Your task to perform on an android device: toggle notification dots Image 0: 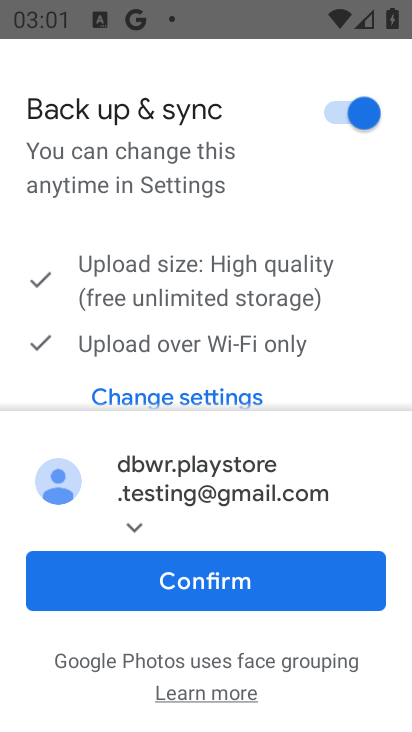
Step 0: press home button
Your task to perform on an android device: toggle notification dots Image 1: 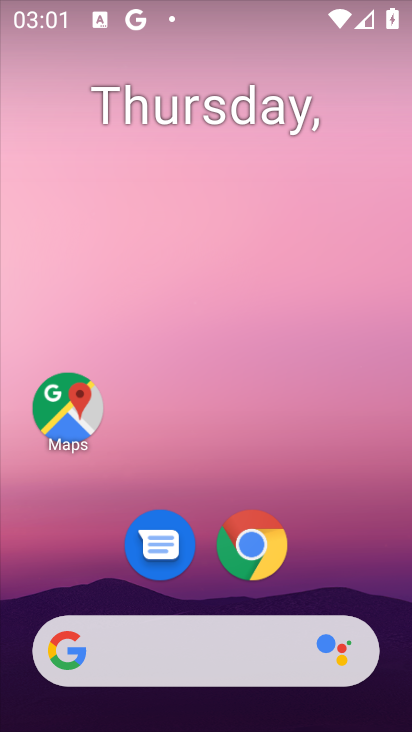
Step 1: drag from (178, 682) to (156, 278)
Your task to perform on an android device: toggle notification dots Image 2: 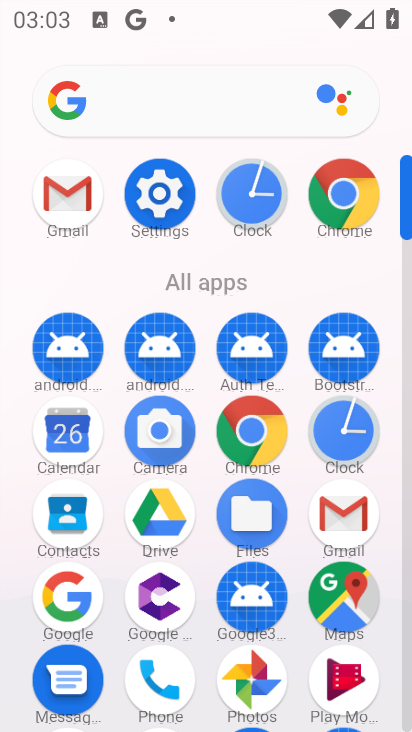
Step 2: click (153, 192)
Your task to perform on an android device: toggle notification dots Image 3: 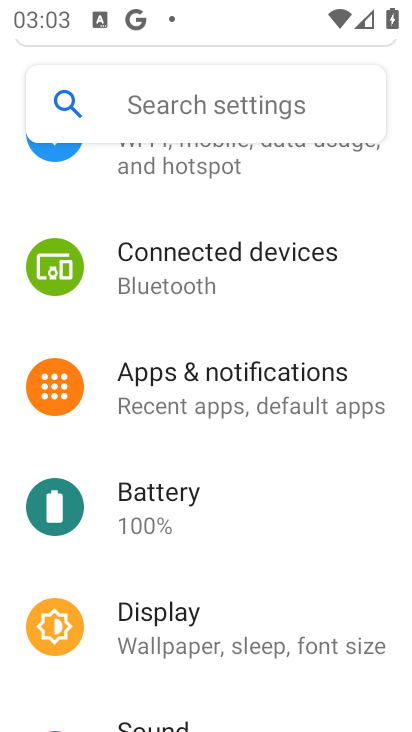
Step 3: drag from (274, 382) to (255, 722)
Your task to perform on an android device: toggle notification dots Image 4: 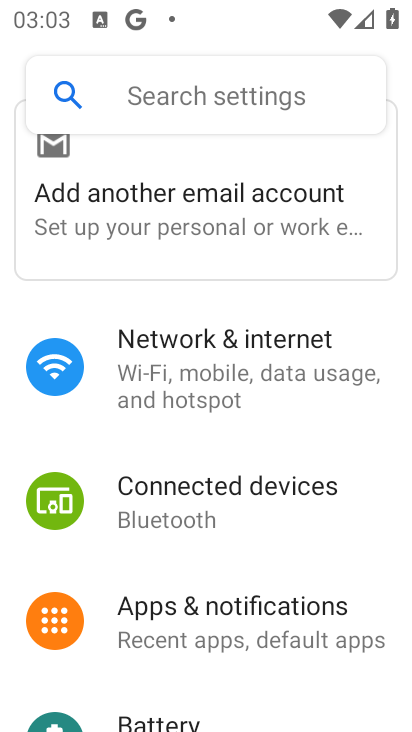
Step 4: click (262, 617)
Your task to perform on an android device: toggle notification dots Image 5: 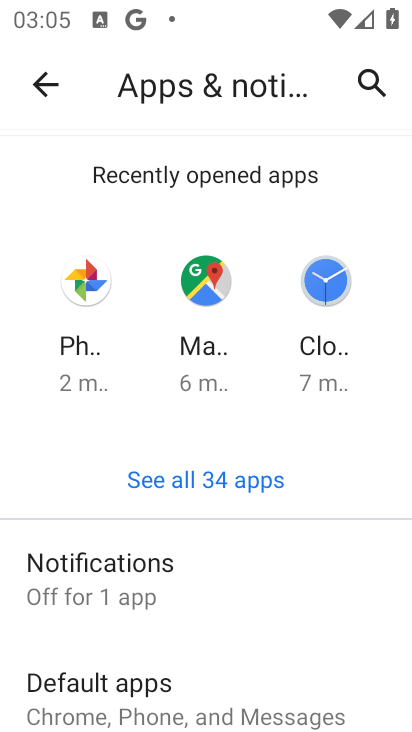
Step 5: drag from (342, 669) to (410, 365)
Your task to perform on an android device: toggle notification dots Image 6: 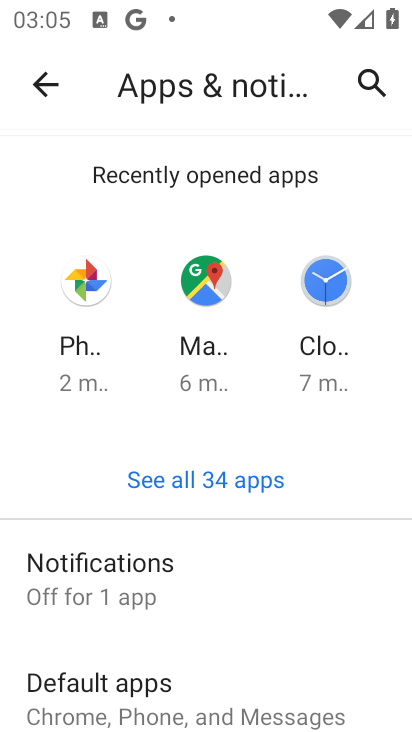
Step 6: drag from (345, 640) to (227, 158)
Your task to perform on an android device: toggle notification dots Image 7: 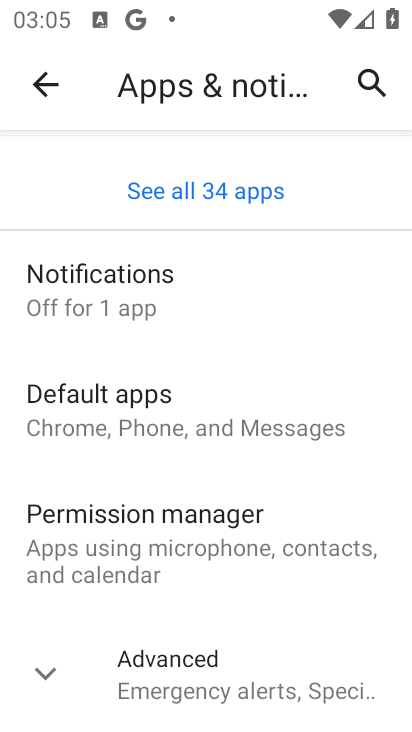
Step 7: click (286, 682)
Your task to perform on an android device: toggle notification dots Image 8: 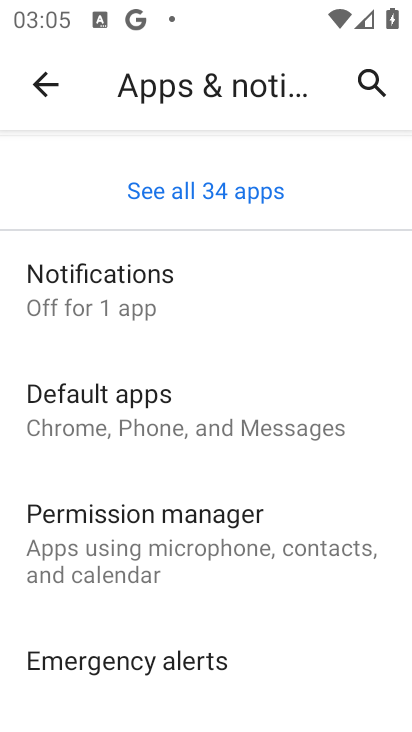
Step 8: drag from (364, 649) to (268, 103)
Your task to perform on an android device: toggle notification dots Image 9: 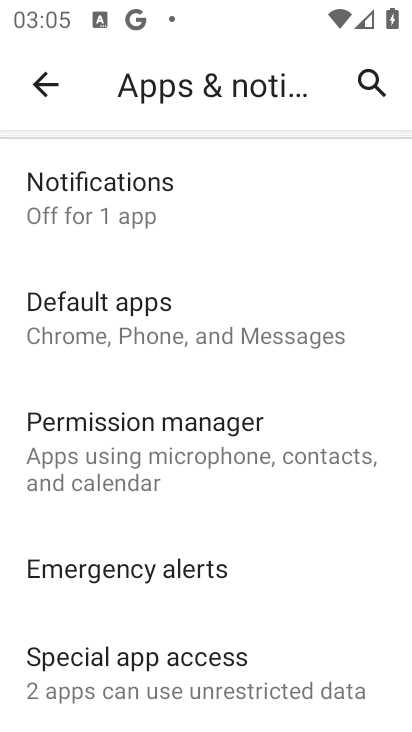
Step 9: click (266, 682)
Your task to perform on an android device: toggle notification dots Image 10: 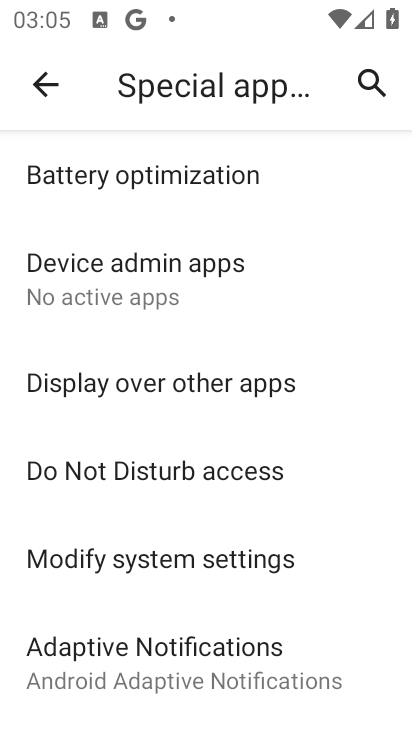
Step 10: click (27, 87)
Your task to perform on an android device: toggle notification dots Image 11: 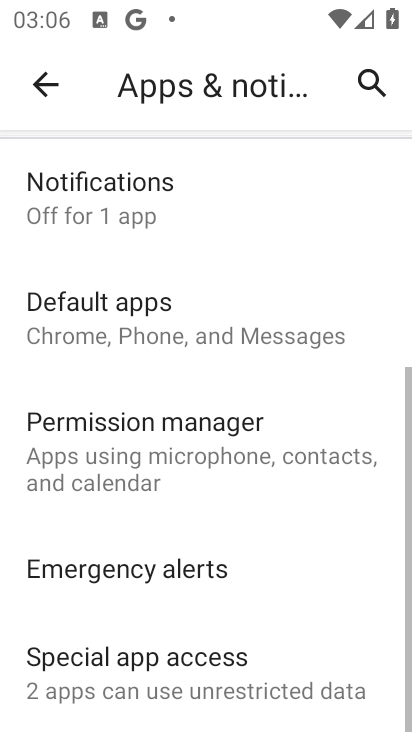
Step 11: drag from (268, 652) to (156, 42)
Your task to perform on an android device: toggle notification dots Image 12: 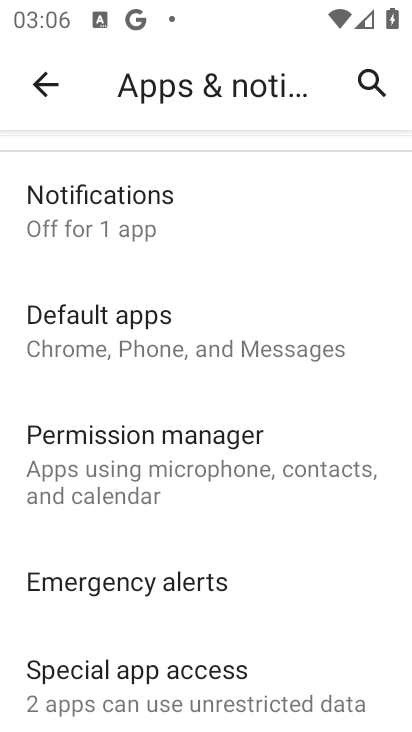
Step 12: click (164, 221)
Your task to perform on an android device: toggle notification dots Image 13: 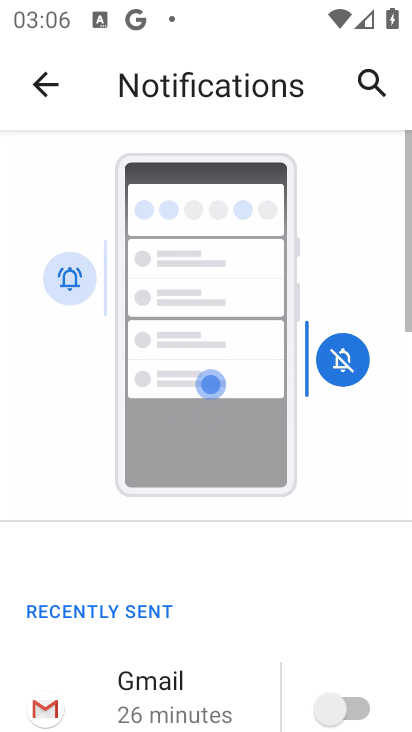
Step 13: drag from (246, 662) to (251, 20)
Your task to perform on an android device: toggle notification dots Image 14: 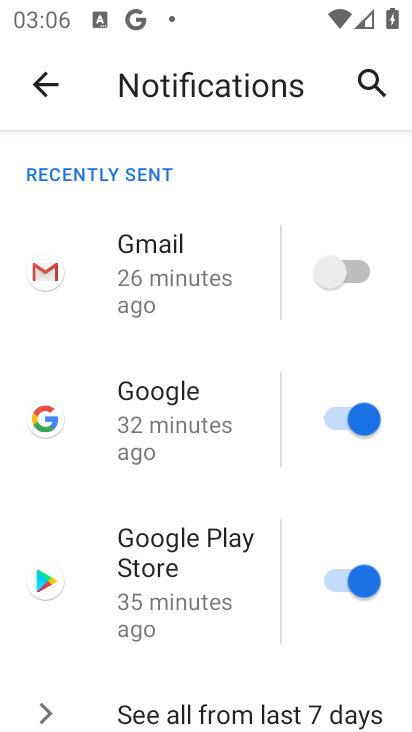
Step 14: drag from (168, 241) to (148, 7)
Your task to perform on an android device: toggle notification dots Image 15: 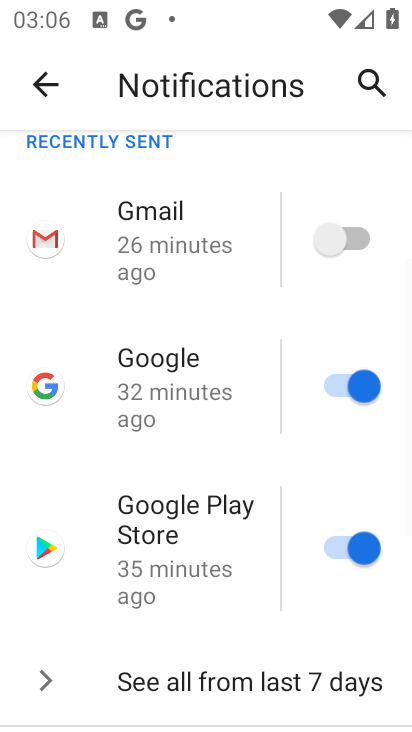
Step 15: drag from (286, 635) to (202, 123)
Your task to perform on an android device: toggle notification dots Image 16: 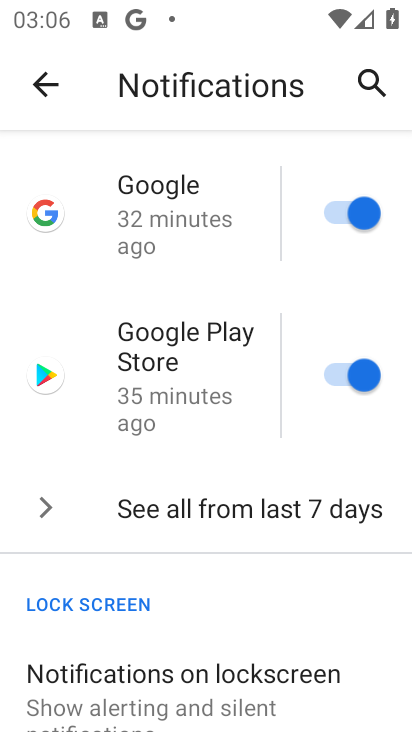
Step 16: drag from (305, 654) to (197, 62)
Your task to perform on an android device: toggle notification dots Image 17: 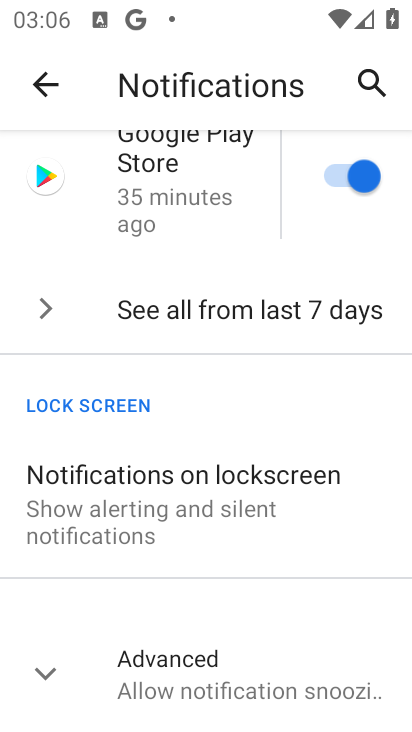
Step 17: click (307, 689)
Your task to perform on an android device: toggle notification dots Image 18: 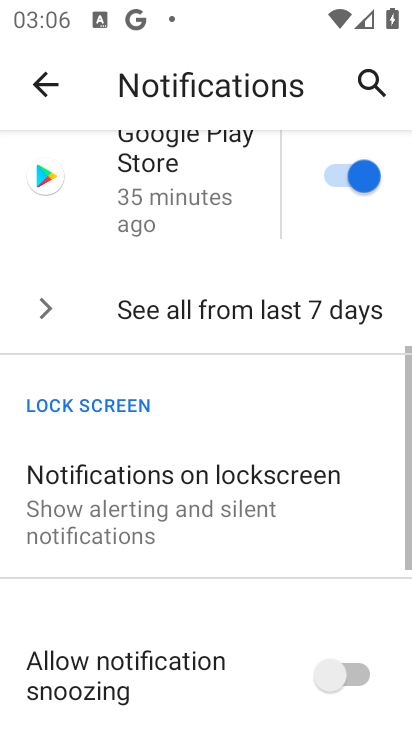
Step 18: drag from (265, 688) to (179, 25)
Your task to perform on an android device: toggle notification dots Image 19: 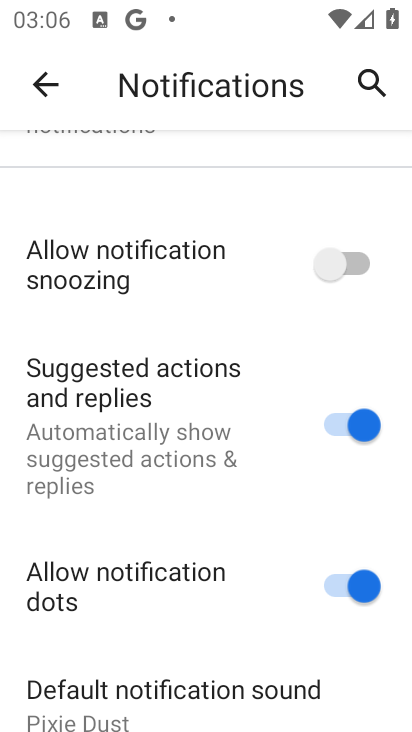
Step 19: click (371, 592)
Your task to perform on an android device: toggle notification dots Image 20: 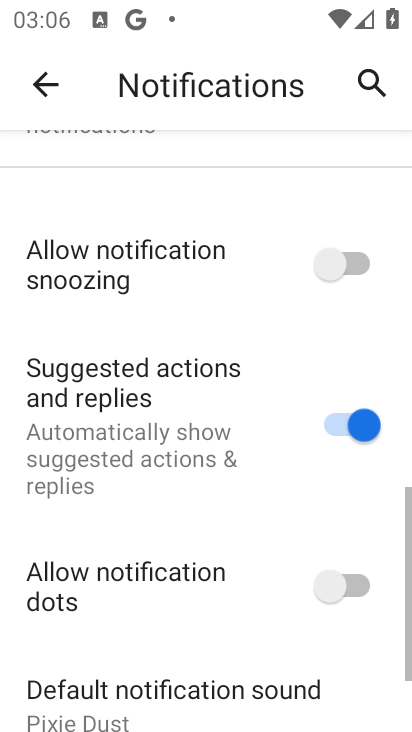
Step 20: task complete